Your task to perform on an android device: Open calendar and show me the fourth week of next month Image 0: 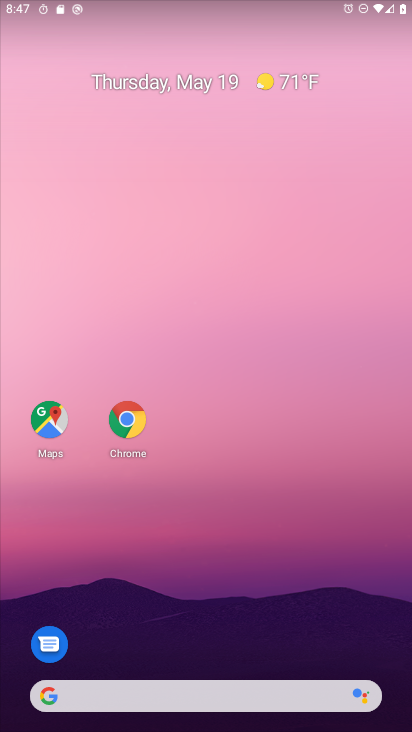
Step 0: drag from (193, 682) to (267, 417)
Your task to perform on an android device: Open calendar and show me the fourth week of next month Image 1: 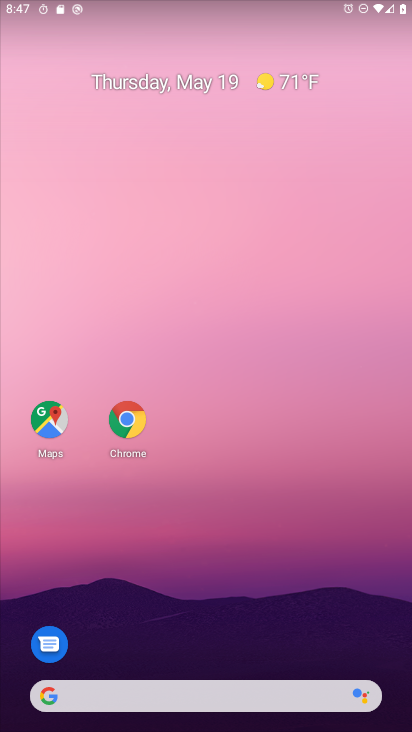
Step 1: drag from (283, 686) to (320, 367)
Your task to perform on an android device: Open calendar and show me the fourth week of next month Image 2: 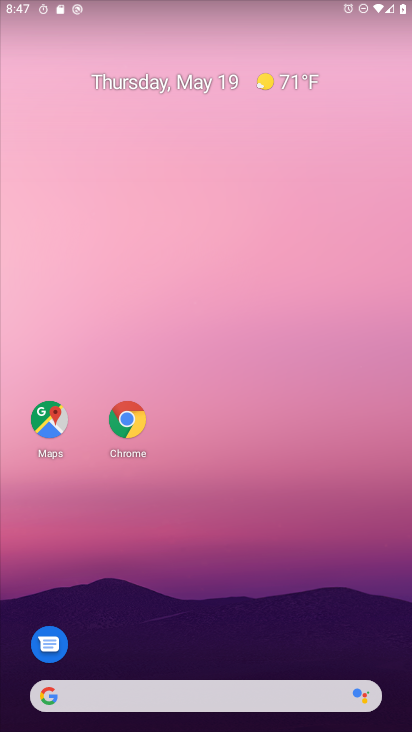
Step 2: drag from (226, 676) to (251, 386)
Your task to perform on an android device: Open calendar and show me the fourth week of next month Image 3: 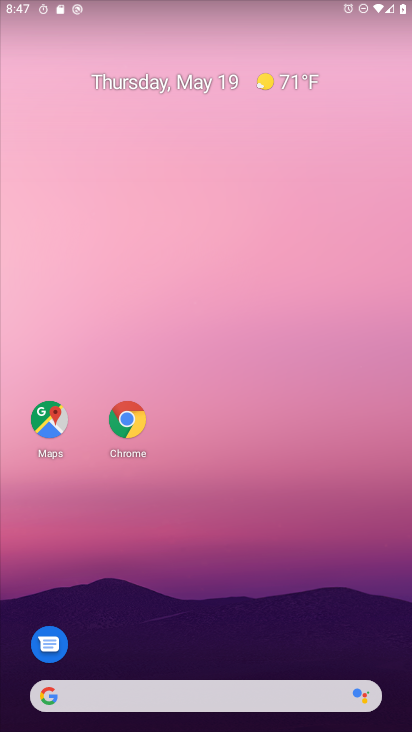
Step 3: drag from (154, 674) to (204, 333)
Your task to perform on an android device: Open calendar and show me the fourth week of next month Image 4: 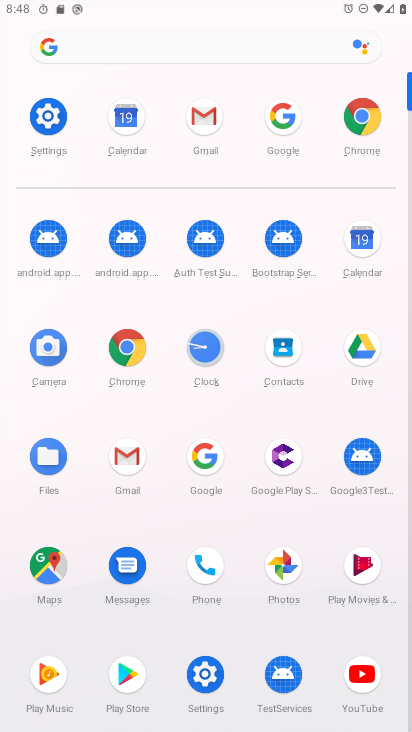
Step 4: click (365, 243)
Your task to perform on an android device: Open calendar and show me the fourth week of next month Image 5: 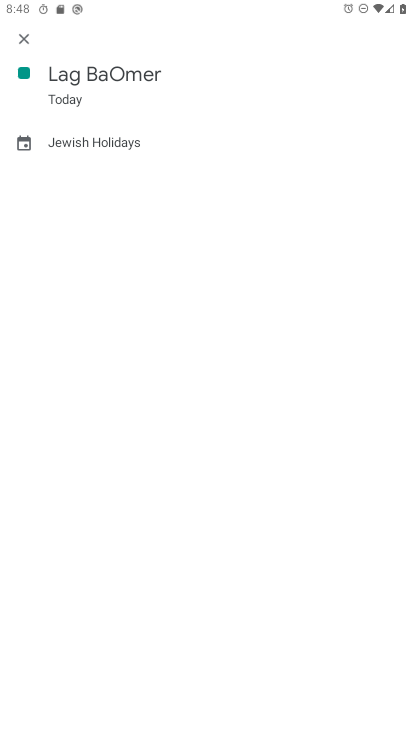
Step 5: click (33, 38)
Your task to perform on an android device: Open calendar and show me the fourth week of next month Image 6: 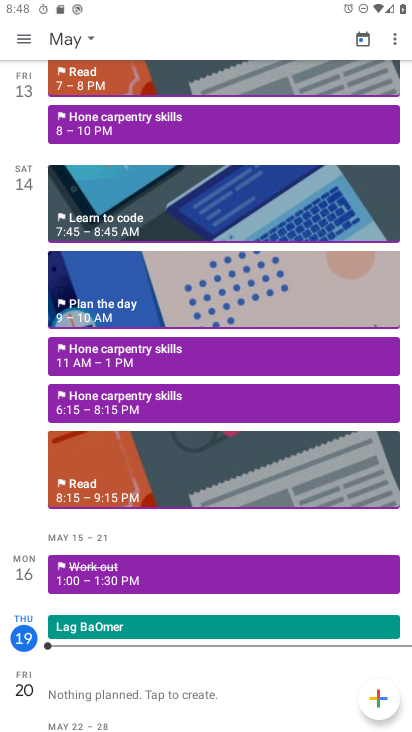
Step 6: click (92, 34)
Your task to perform on an android device: Open calendar and show me the fourth week of next month Image 7: 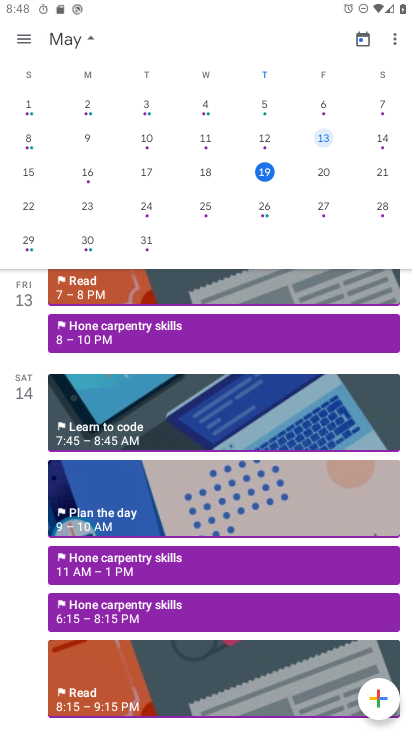
Step 7: drag from (392, 197) to (30, 213)
Your task to perform on an android device: Open calendar and show me the fourth week of next month Image 8: 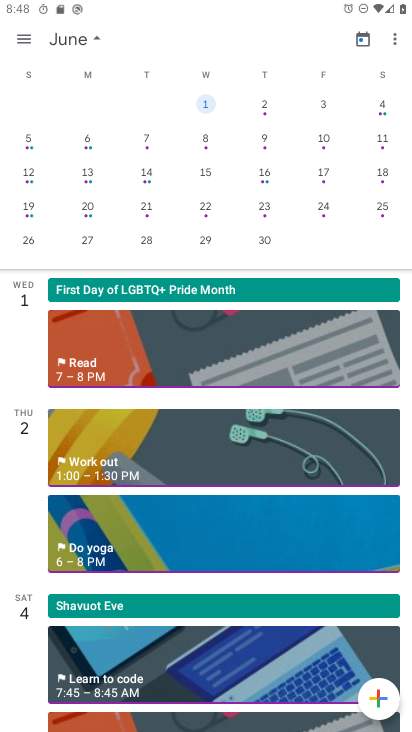
Step 8: click (28, 206)
Your task to perform on an android device: Open calendar and show me the fourth week of next month Image 9: 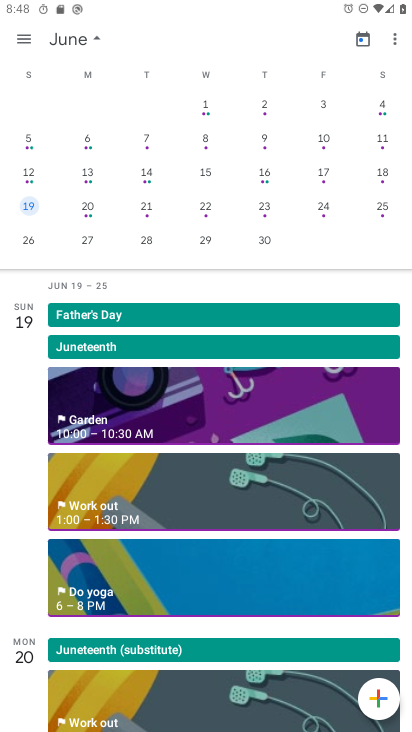
Step 9: task complete